Your task to perform on an android device: Search for dining room chairs on Crate & Barrel Image 0: 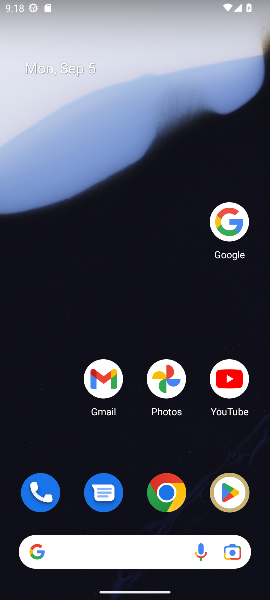
Step 0: click (232, 216)
Your task to perform on an android device: Search for dining room chairs on Crate & Barrel Image 1: 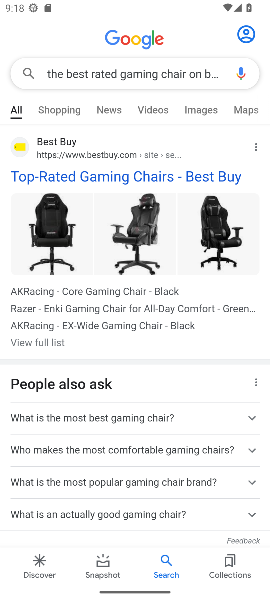
Step 1: click (99, 67)
Your task to perform on an android device: Search for dining room chairs on Crate & Barrel Image 2: 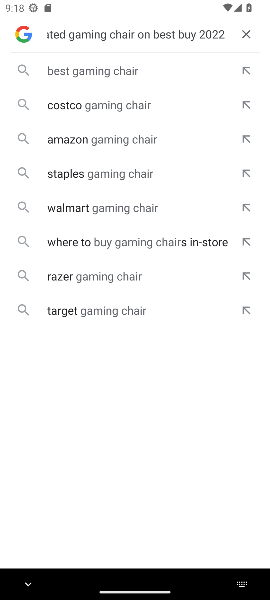
Step 2: click (243, 28)
Your task to perform on an android device: Search for dining room chairs on Crate & Barrel Image 3: 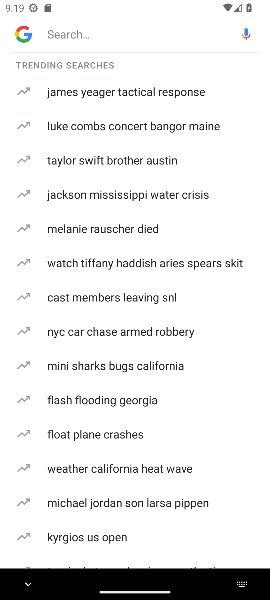
Step 3: click (102, 34)
Your task to perform on an android device: Search for dining room chairs on Crate & Barrel Image 4: 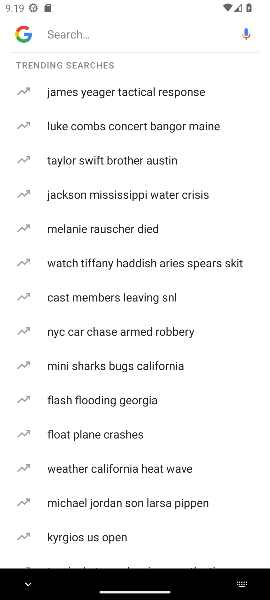
Step 4: type " dining room chairs on Crate & Barrel "
Your task to perform on an android device: Search for dining room chairs on Crate & Barrel Image 5: 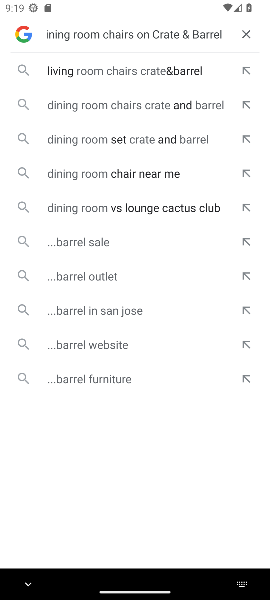
Step 5: click (89, 77)
Your task to perform on an android device: Search for dining room chairs on Crate & Barrel Image 6: 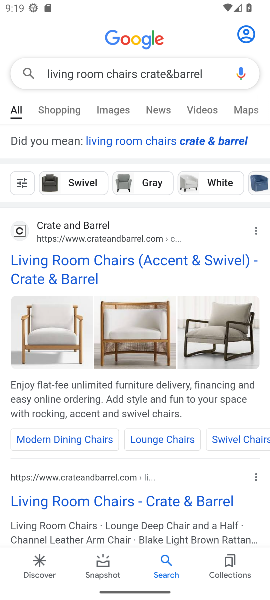
Step 6: click (96, 262)
Your task to perform on an android device: Search for dining room chairs on Crate & Barrel Image 7: 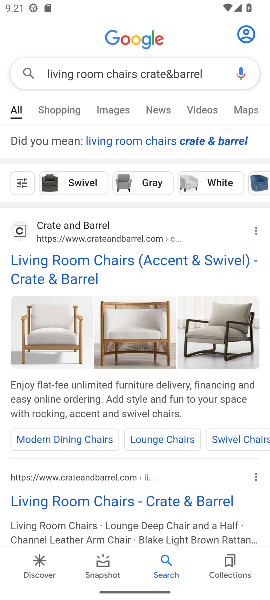
Step 7: task complete